Your task to perform on an android device: Open my contact list Image 0: 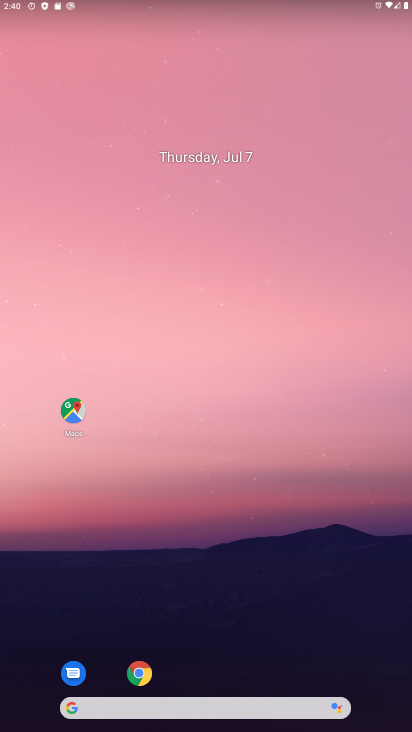
Step 0: drag from (214, 666) to (191, 22)
Your task to perform on an android device: Open my contact list Image 1: 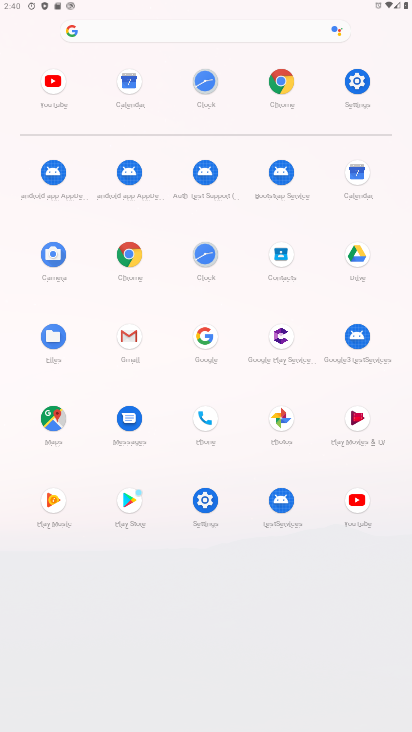
Step 1: click (210, 421)
Your task to perform on an android device: Open my contact list Image 2: 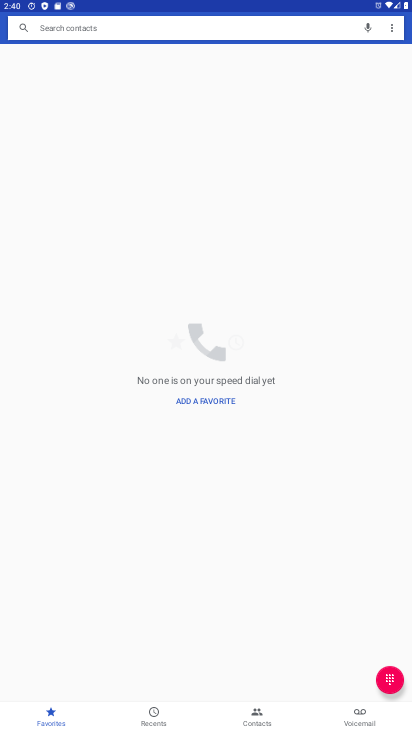
Step 2: click (256, 712)
Your task to perform on an android device: Open my contact list Image 3: 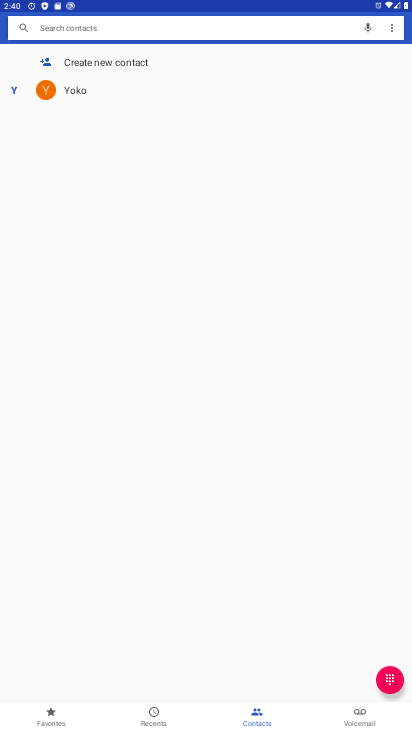
Step 3: task complete